Your task to perform on an android device: visit the assistant section in the google photos Image 0: 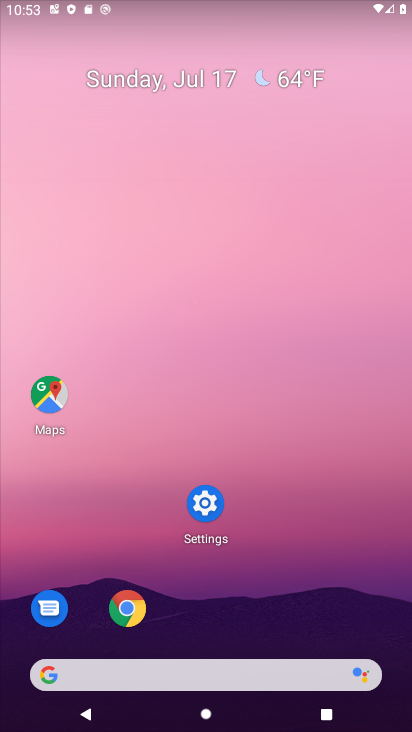
Step 0: drag from (397, 705) to (352, 113)
Your task to perform on an android device: visit the assistant section in the google photos Image 1: 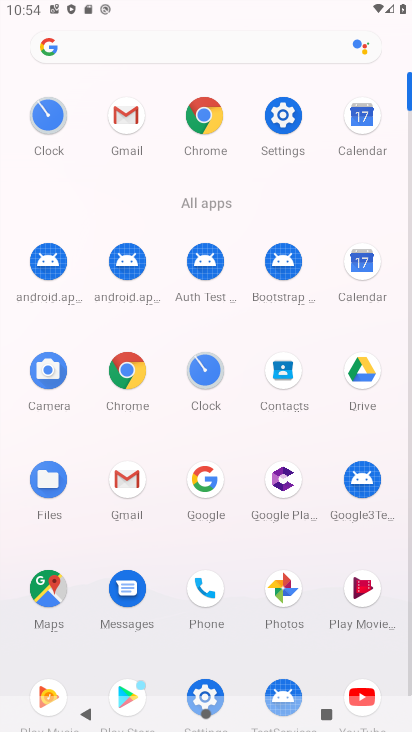
Step 1: click (285, 596)
Your task to perform on an android device: visit the assistant section in the google photos Image 2: 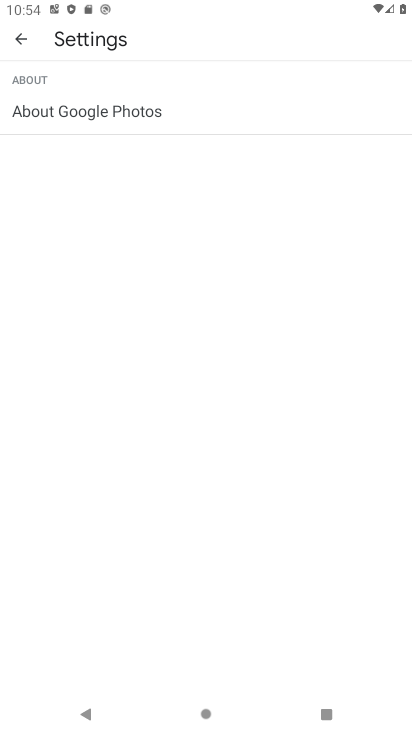
Step 2: task complete